Your task to perform on an android device: Open accessibility settings Image 0: 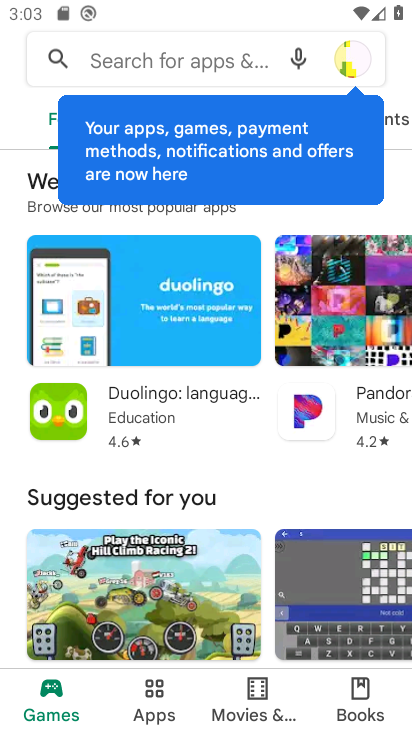
Step 0: press home button
Your task to perform on an android device: Open accessibility settings Image 1: 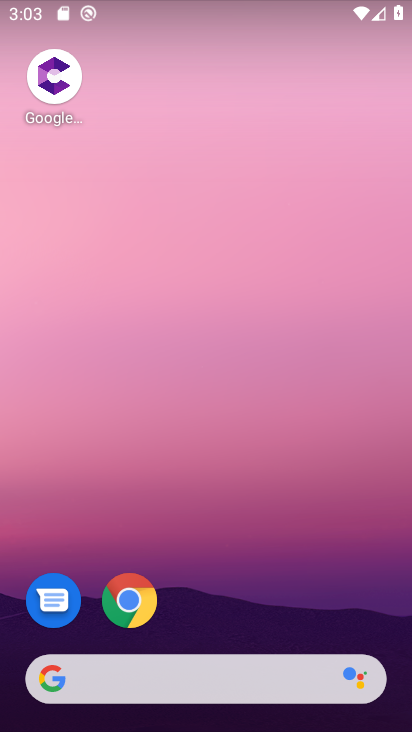
Step 1: drag from (282, 584) to (264, 164)
Your task to perform on an android device: Open accessibility settings Image 2: 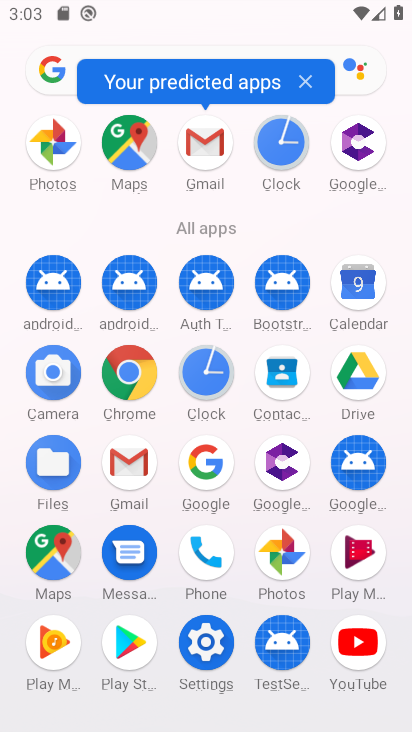
Step 2: click (207, 647)
Your task to perform on an android device: Open accessibility settings Image 3: 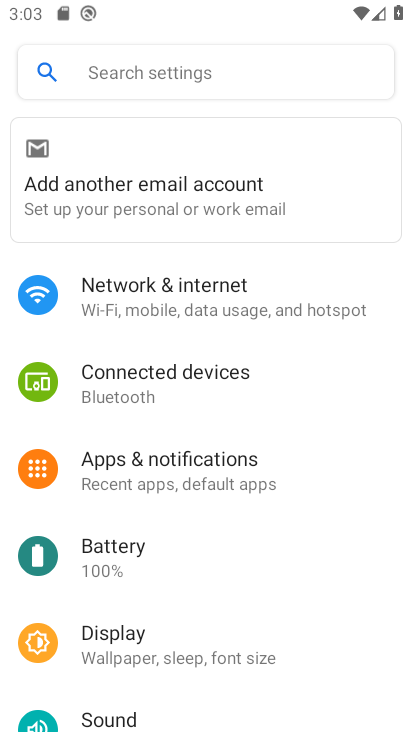
Step 3: drag from (234, 515) to (208, 175)
Your task to perform on an android device: Open accessibility settings Image 4: 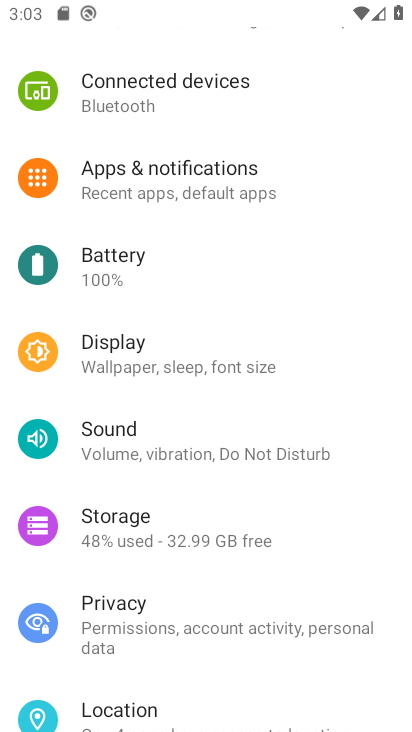
Step 4: drag from (217, 487) to (221, 140)
Your task to perform on an android device: Open accessibility settings Image 5: 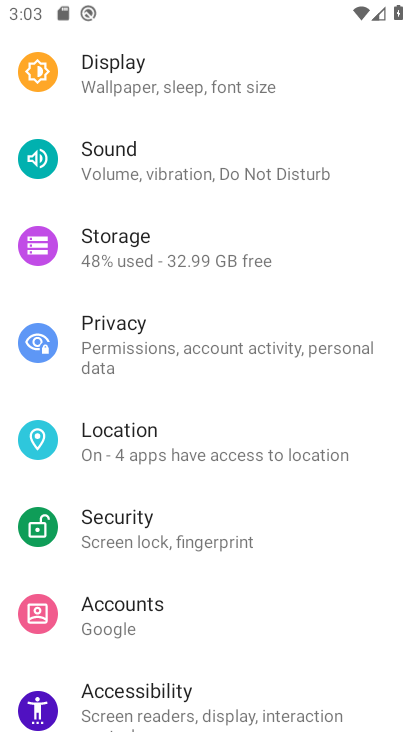
Step 5: drag from (170, 594) to (172, 425)
Your task to perform on an android device: Open accessibility settings Image 6: 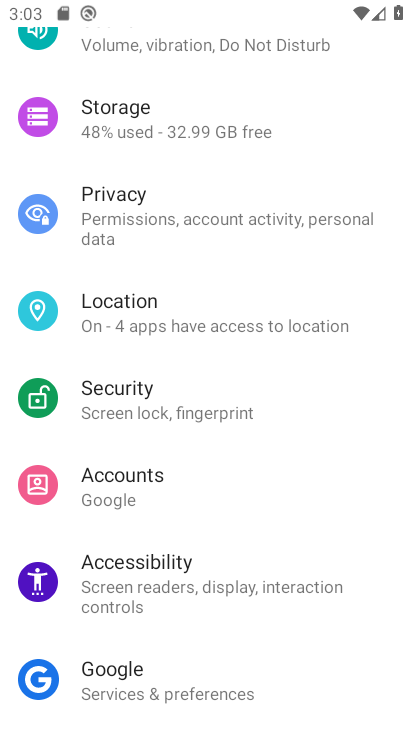
Step 6: click (168, 581)
Your task to perform on an android device: Open accessibility settings Image 7: 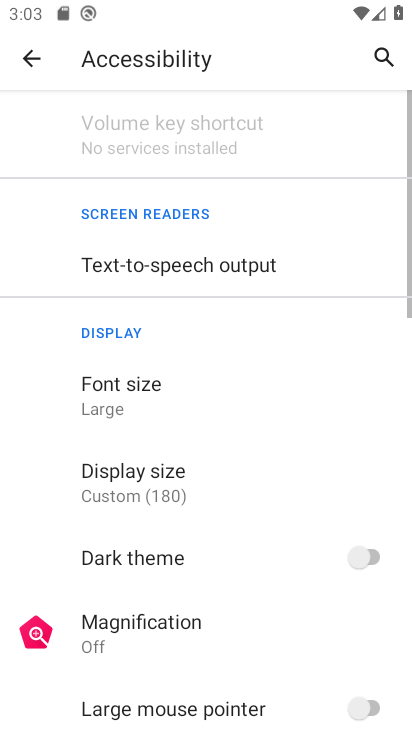
Step 7: task complete